Your task to perform on an android device: delete browsing data in the chrome app Image 0: 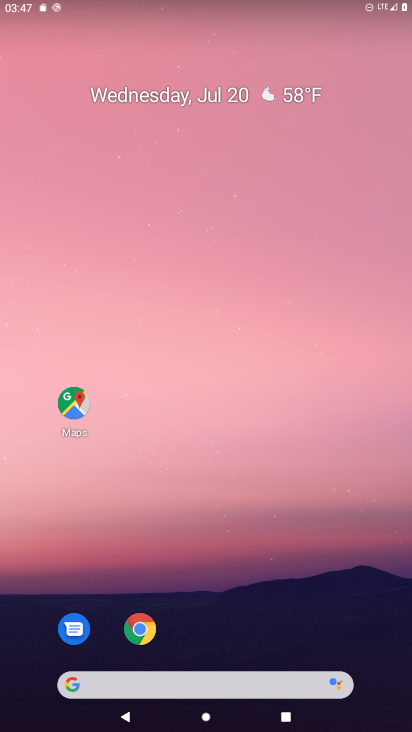
Step 0: click (141, 647)
Your task to perform on an android device: delete browsing data in the chrome app Image 1: 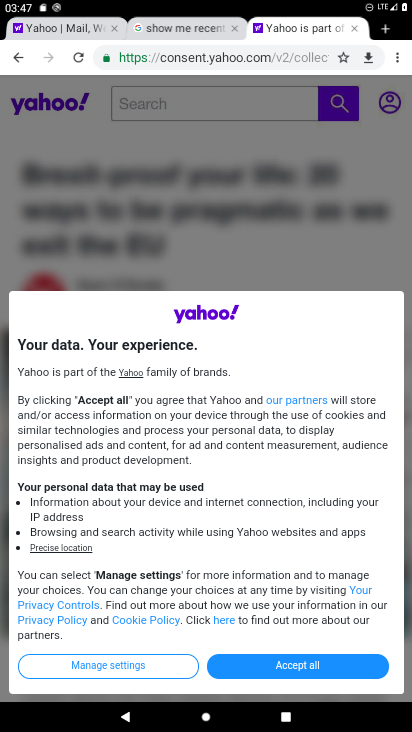
Step 1: drag from (392, 66) to (274, 386)
Your task to perform on an android device: delete browsing data in the chrome app Image 2: 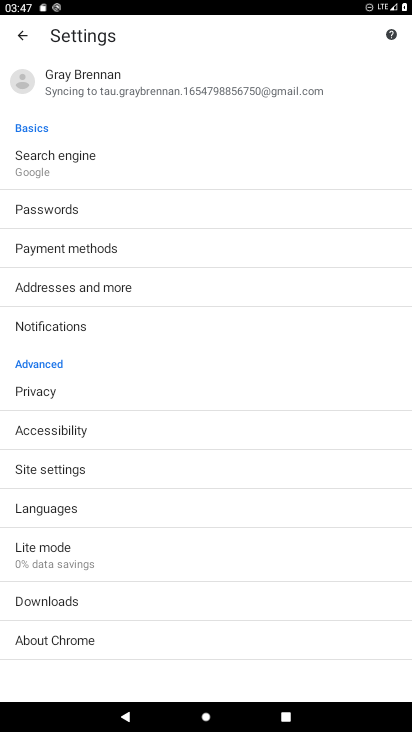
Step 2: click (22, 400)
Your task to perform on an android device: delete browsing data in the chrome app Image 3: 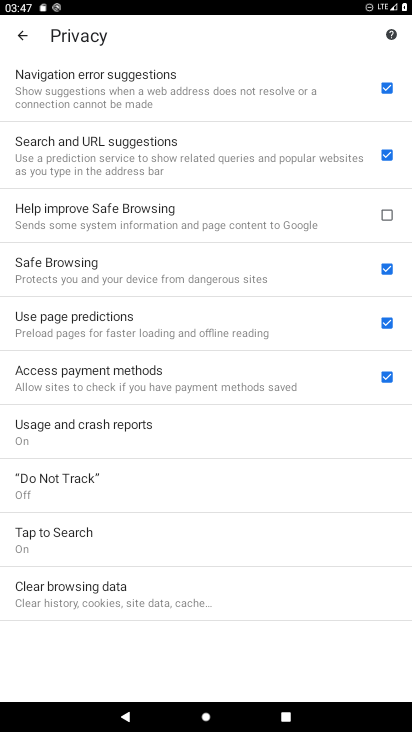
Step 3: click (43, 576)
Your task to perform on an android device: delete browsing data in the chrome app Image 4: 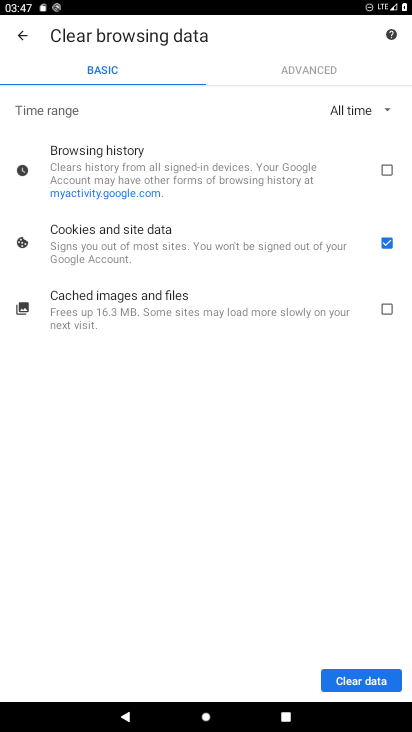
Step 4: click (342, 672)
Your task to perform on an android device: delete browsing data in the chrome app Image 5: 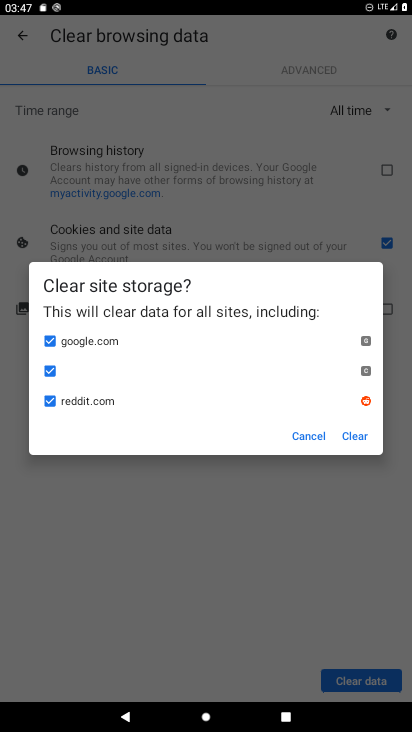
Step 5: click (350, 439)
Your task to perform on an android device: delete browsing data in the chrome app Image 6: 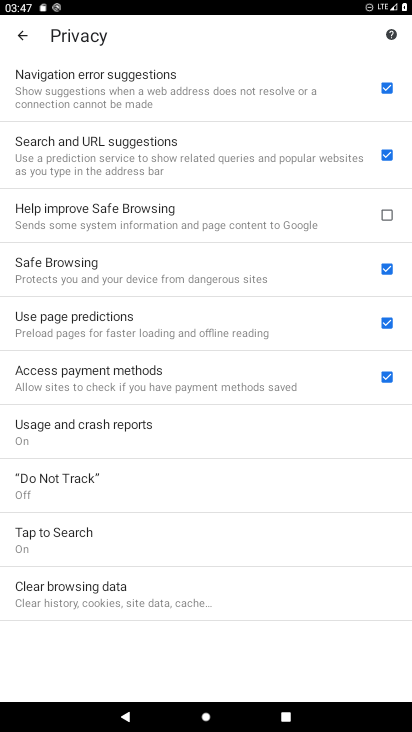
Step 6: task complete